Your task to perform on an android device: Add "asus zenbook" to the cart on newegg.com, then select checkout. Image 0: 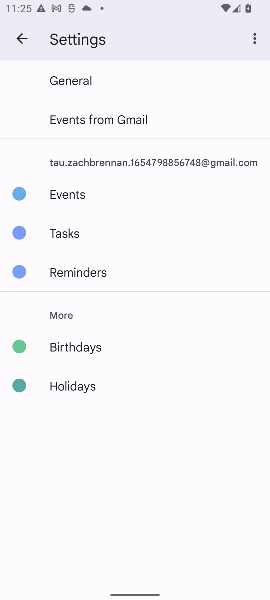
Step 0: press home button
Your task to perform on an android device: Add "asus zenbook" to the cart on newegg.com, then select checkout. Image 1: 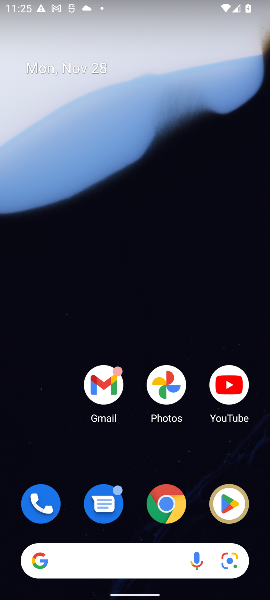
Step 1: click (171, 505)
Your task to perform on an android device: Add "asus zenbook" to the cart on newegg.com, then select checkout. Image 2: 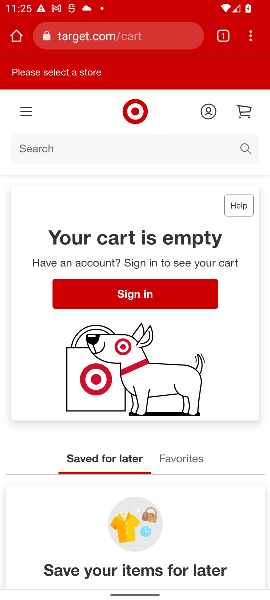
Step 2: click (120, 31)
Your task to perform on an android device: Add "asus zenbook" to the cart on newegg.com, then select checkout. Image 3: 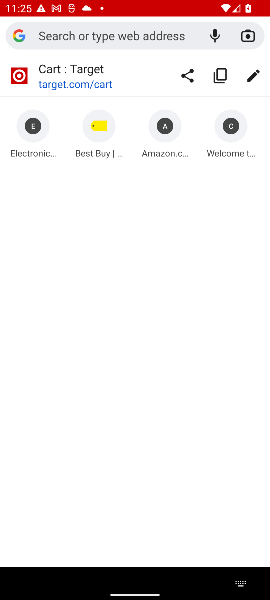
Step 3: type "newegg.com"
Your task to perform on an android device: Add "asus zenbook" to the cart on newegg.com, then select checkout. Image 4: 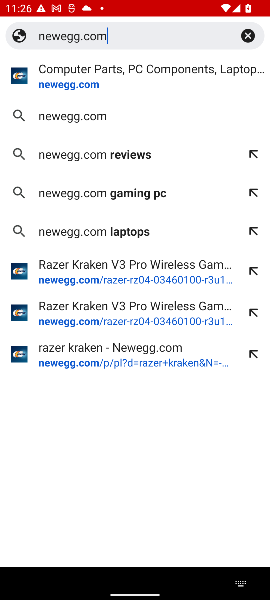
Step 4: click (66, 87)
Your task to perform on an android device: Add "asus zenbook" to the cart on newegg.com, then select checkout. Image 5: 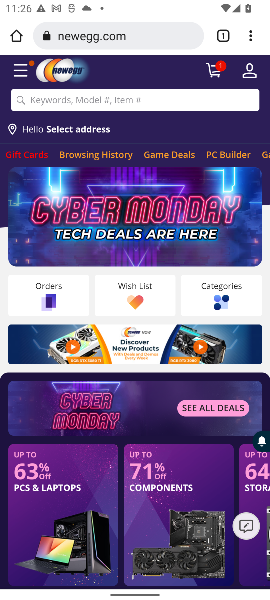
Step 5: click (61, 100)
Your task to perform on an android device: Add "asus zenbook" to the cart on newegg.com, then select checkout. Image 6: 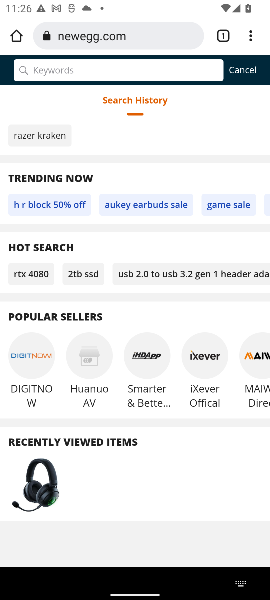
Step 6: type "asus zenbook"
Your task to perform on an android device: Add "asus zenbook" to the cart on newegg.com, then select checkout. Image 7: 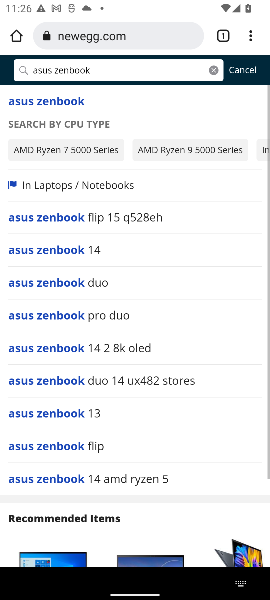
Step 7: click (66, 108)
Your task to perform on an android device: Add "asus zenbook" to the cart on newegg.com, then select checkout. Image 8: 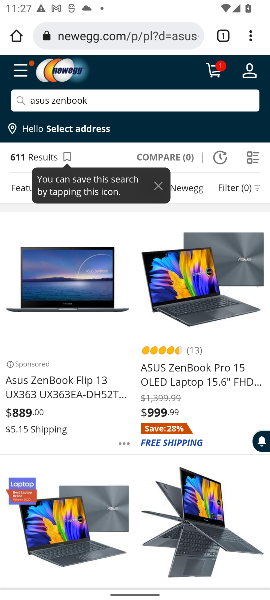
Step 8: click (43, 374)
Your task to perform on an android device: Add "asus zenbook" to the cart on newegg.com, then select checkout. Image 9: 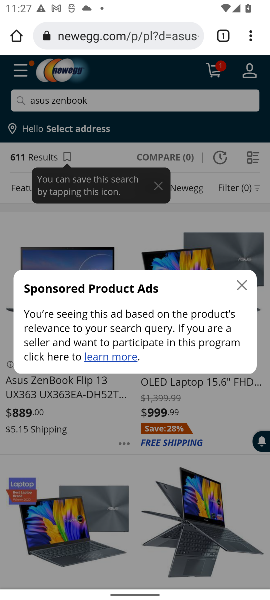
Step 9: click (238, 287)
Your task to perform on an android device: Add "asus zenbook" to the cart on newegg.com, then select checkout. Image 10: 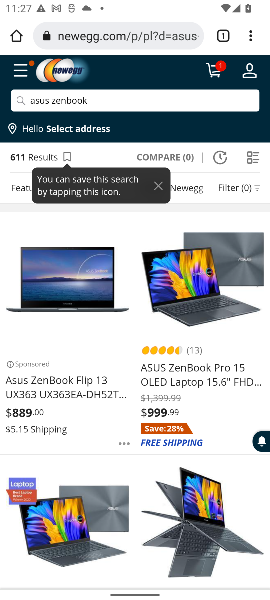
Step 10: click (52, 392)
Your task to perform on an android device: Add "asus zenbook" to the cart on newegg.com, then select checkout. Image 11: 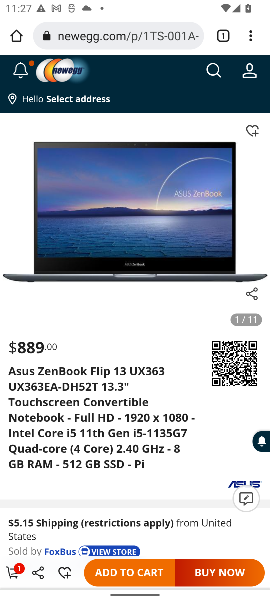
Step 11: click (132, 569)
Your task to perform on an android device: Add "asus zenbook" to the cart on newegg.com, then select checkout. Image 12: 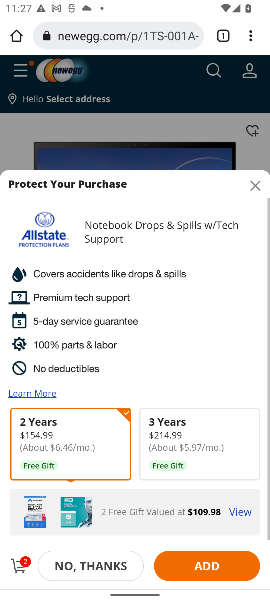
Step 12: click (19, 567)
Your task to perform on an android device: Add "asus zenbook" to the cart on newegg.com, then select checkout. Image 13: 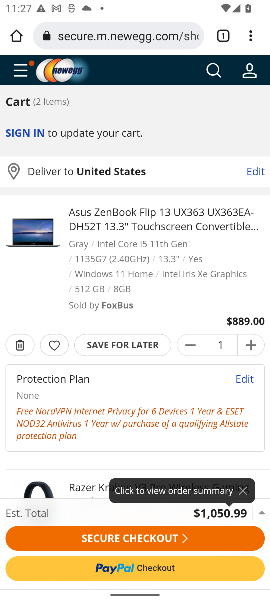
Step 13: click (123, 539)
Your task to perform on an android device: Add "asus zenbook" to the cart on newegg.com, then select checkout. Image 14: 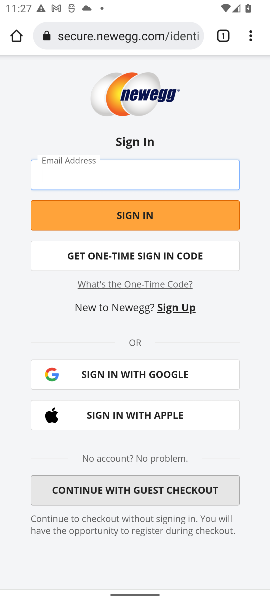
Step 14: task complete